Your task to perform on an android device: turn off location history Image 0: 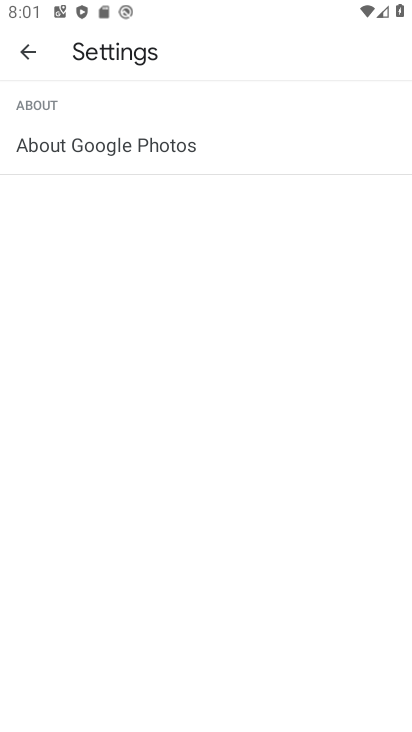
Step 0: press home button
Your task to perform on an android device: turn off location history Image 1: 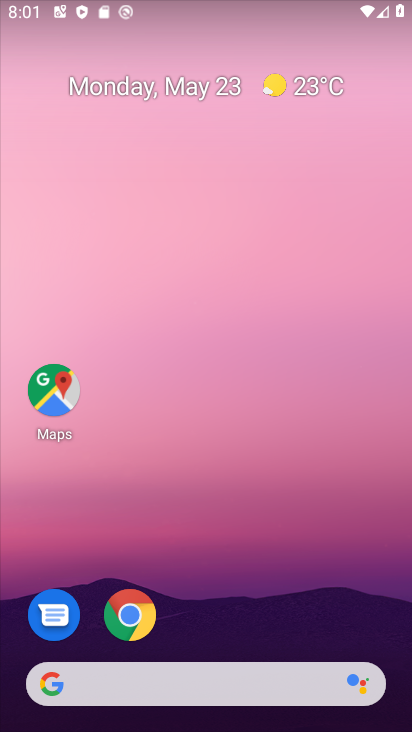
Step 1: drag from (238, 616) to (231, 58)
Your task to perform on an android device: turn off location history Image 2: 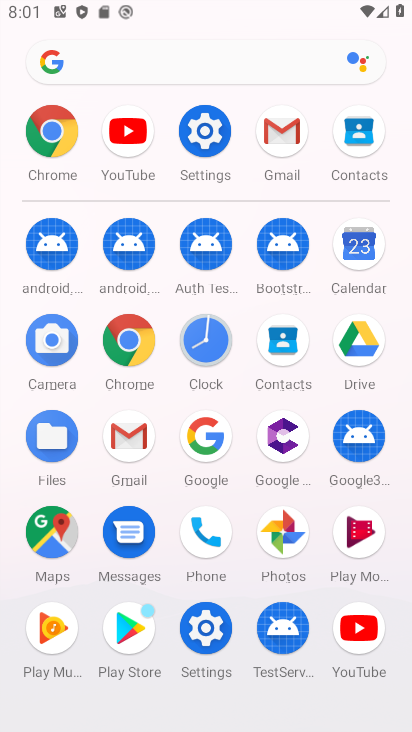
Step 2: click (206, 627)
Your task to perform on an android device: turn off location history Image 3: 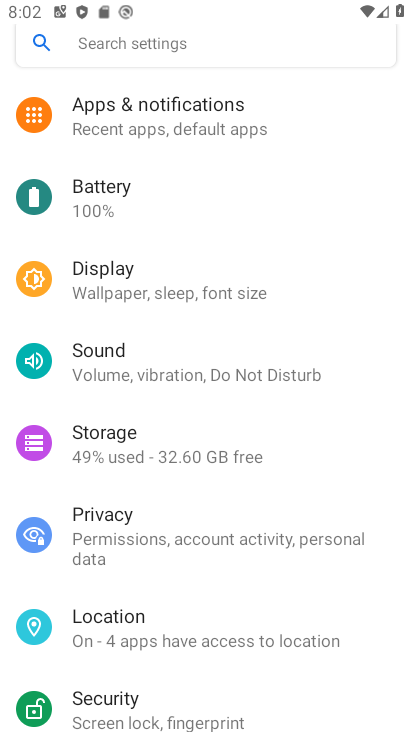
Step 3: click (242, 638)
Your task to perform on an android device: turn off location history Image 4: 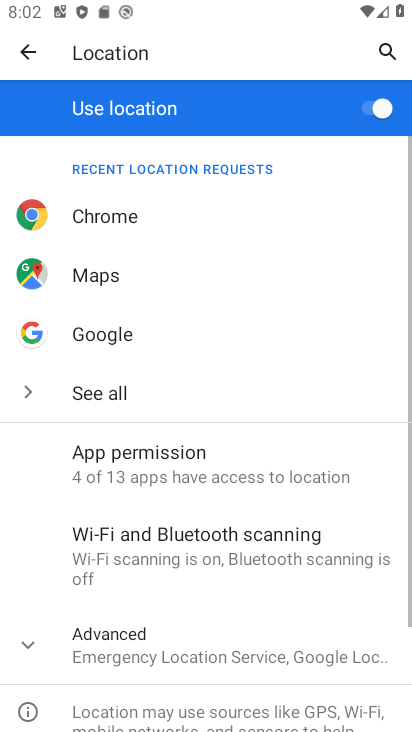
Step 4: drag from (215, 609) to (295, 412)
Your task to perform on an android device: turn off location history Image 5: 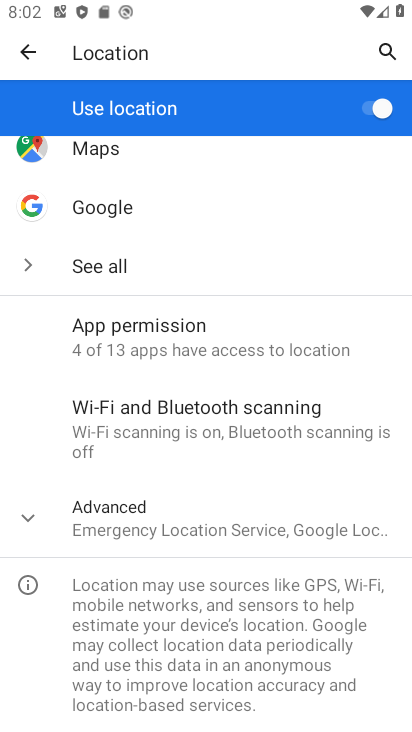
Step 5: click (232, 529)
Your task to perform on an android device: turn off location history Image 6: 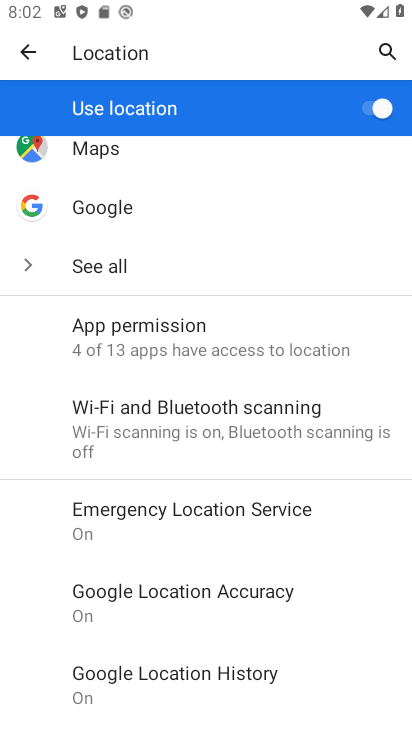
Step 6: drag from (154, 562) to (202, 476)
Your task to perform on an android device: turn off location history Image 7: 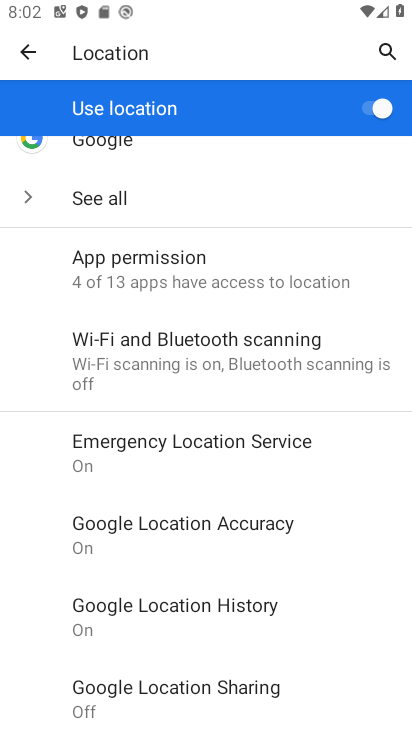
Step 7: drag from (177, 591) to (222, 507)
Your task to perform on an android device: turn off location history Image 8: 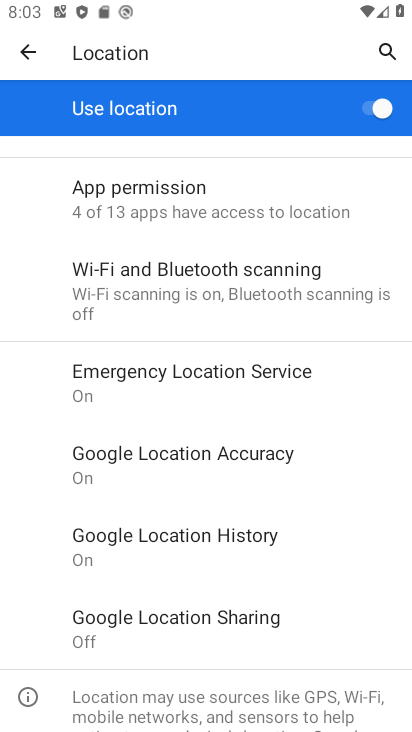
Step 8: click (155, 536)
Your task to perform on an android device: turn off location history Image 9: 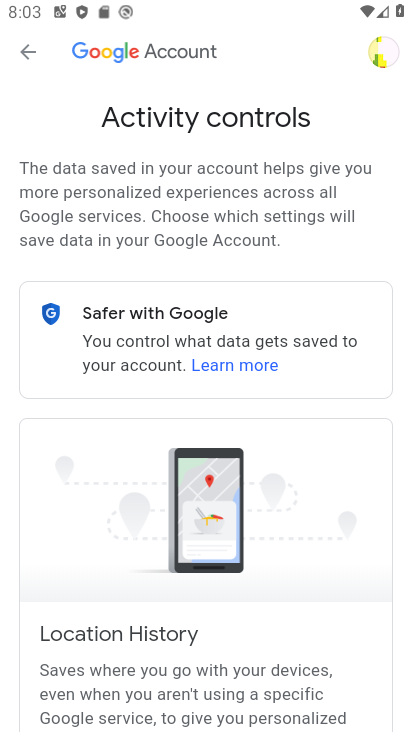
Step 9: drag from (206, 628) to (237, 435)
Your task to perform on an android device: turn off location history Image 10: 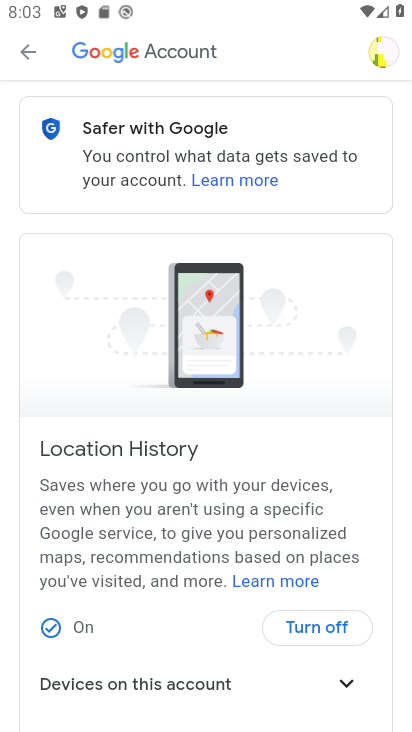
Step 10: click (303, 629)
Your task to perform on an android device: turn off location history Image 11: 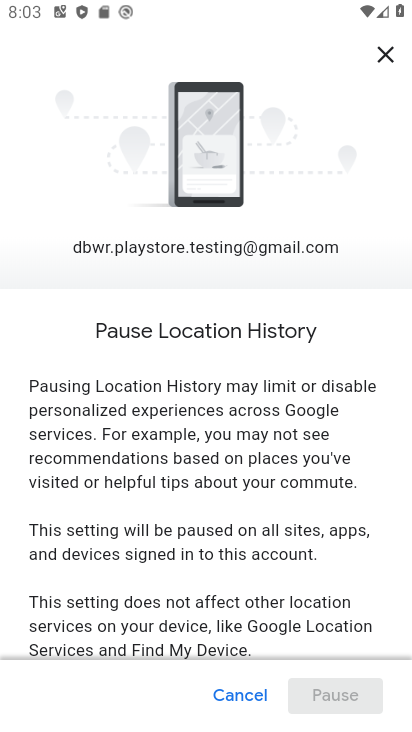
Step 11: drag from (253, 600) to (273, 458)
Your task to perform on an android device: turn off location history Image 12: 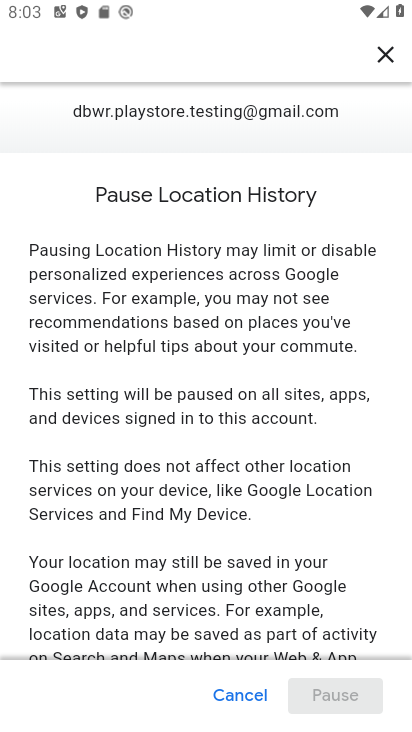
Step 12: click (239, 591)
Your task to perform on an android device: turn off location history Image 13: 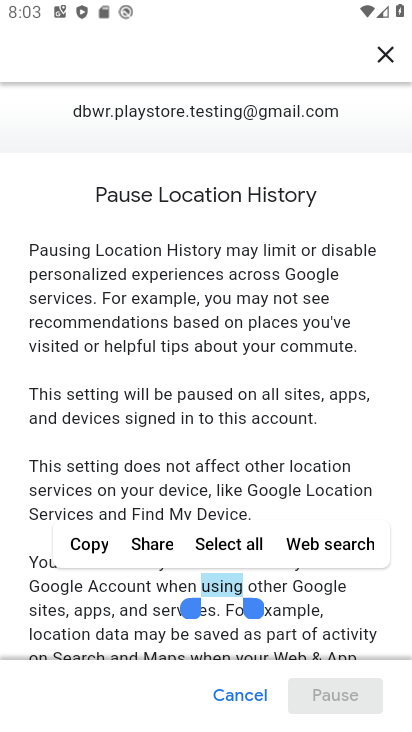
Step 13: drag from (297, 612) to (300, 351)
Your task to perform on an android device: turn off location history Image 14: 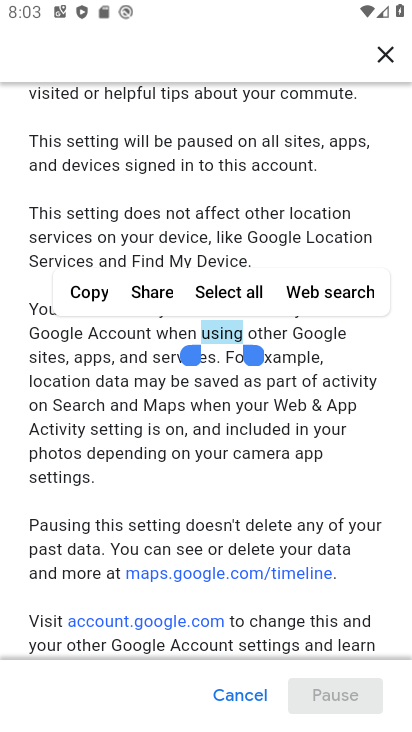
Step 14: drag from (240, 501) to (293, 319)
Your task to perform on an android device: turn off location history Image 15: 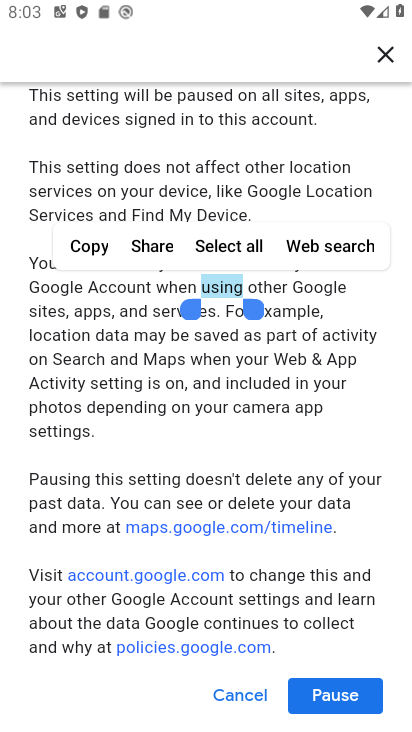
Step 15: click (333, 699)
Your task to perform on an android device: turn off location history Image 16: 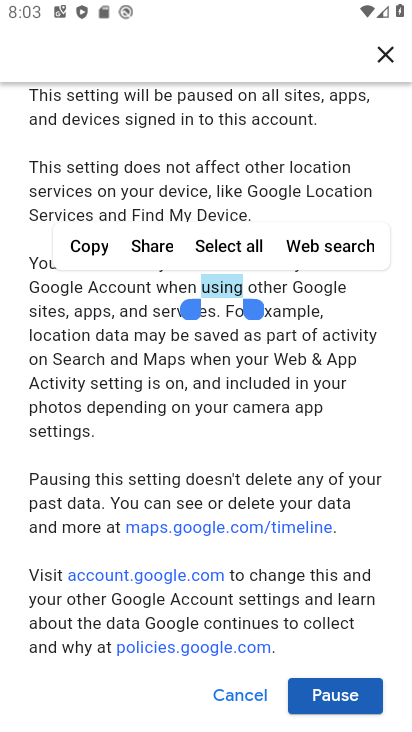
Step 16: click (333, 699)
Your task to perform on an android device: turn off location history Image 17: 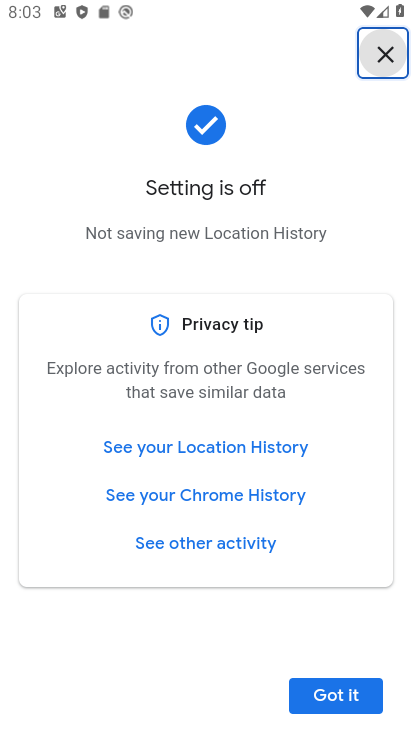
Step 17: click (333, 699)
Your task to perform on an android device: turn off location history Image 18: 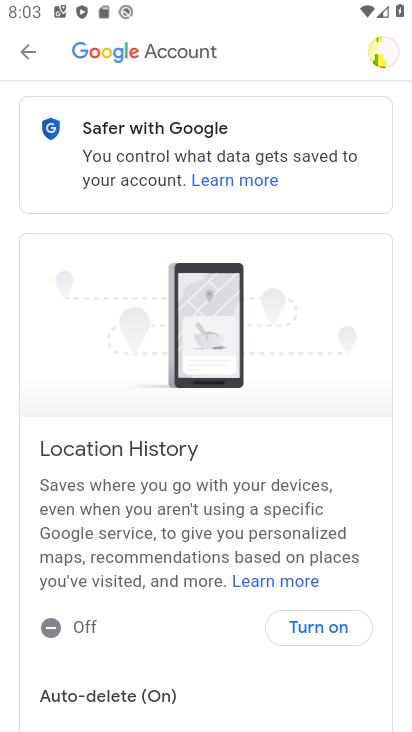
Step 18: task complete